Your task to perform on an android device: set default search engine in the chrome app Image 0: 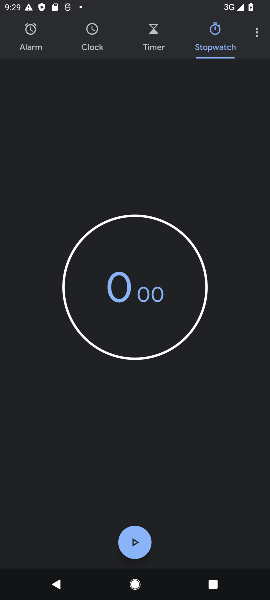
Step 0: press home button
Your task to perform on an android device: set default search engine in the chrome app Image 1: 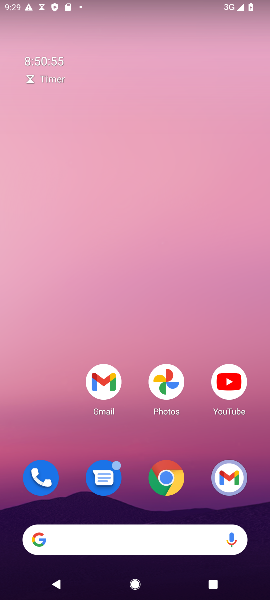
Step 1: click (167, 481)
Your task to perform on an android device: set default search engine in the chrome app Image 2: 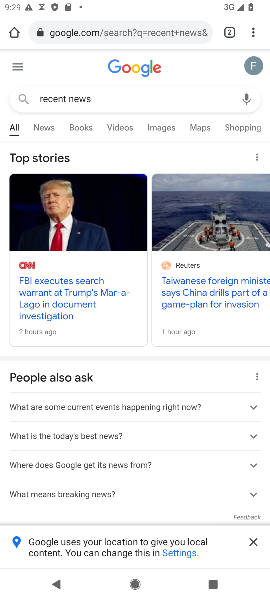
Step 2: click (252, 31)
Your task to perform on an android device: set default search engine in the chrome app Image 3: 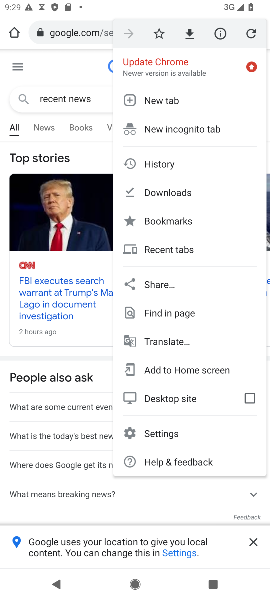
Step 3: click (182, 432)
Your task to perform on an android device: set default search engine in the chrome app Image 4: 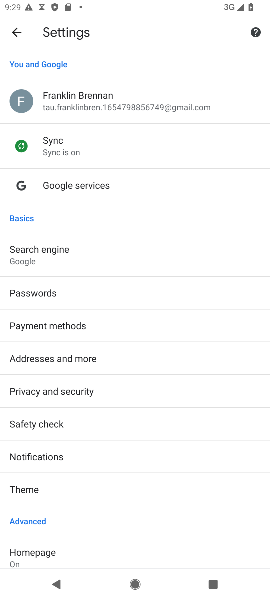
Step 4: click (108, 243)
Your task to perform on an android device: set default search engine in the chrome app Image 5: 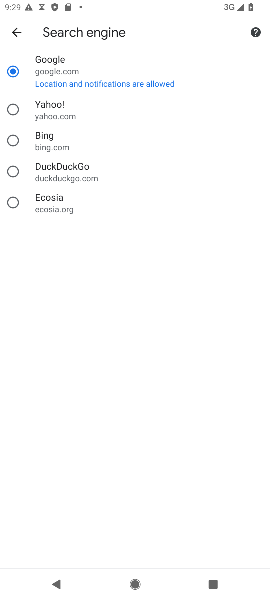
Step 5: click (86, 110)
Your task to perform on an android device: set default search engine in the chrome app Image 6: 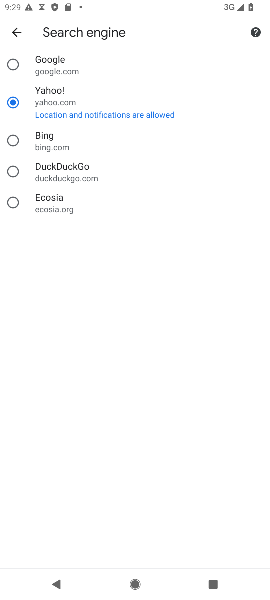
Step 6: task complete